Your task to perform on an android device: check storage Image 0: 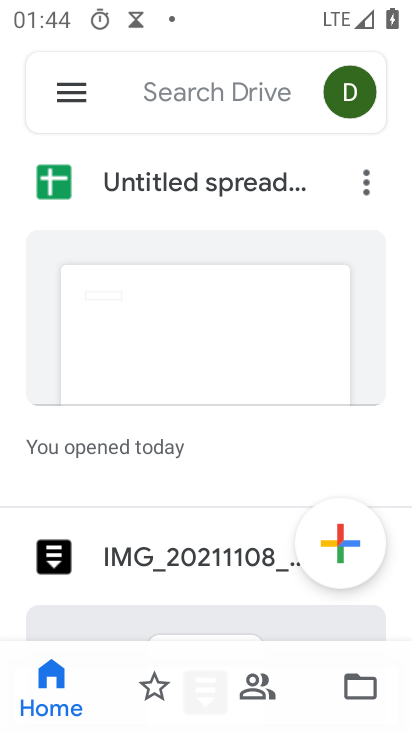
Step 0: press home button
Your task to perform on an android device: check storage Image 1: 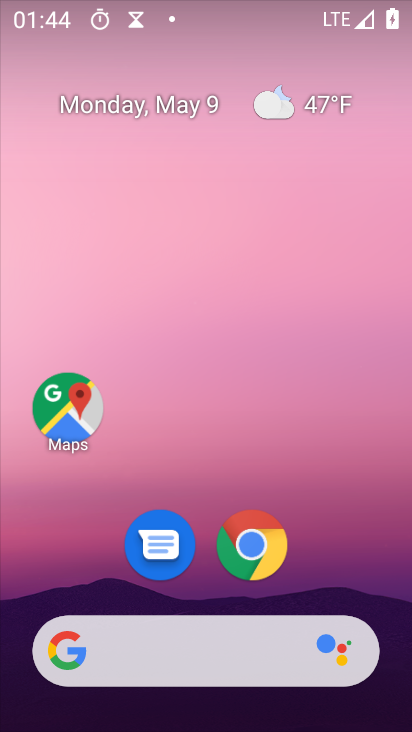
Step 1: drag from (282, 655) to (279, 0)
Your task to perform on an android device: check storage Image 2: 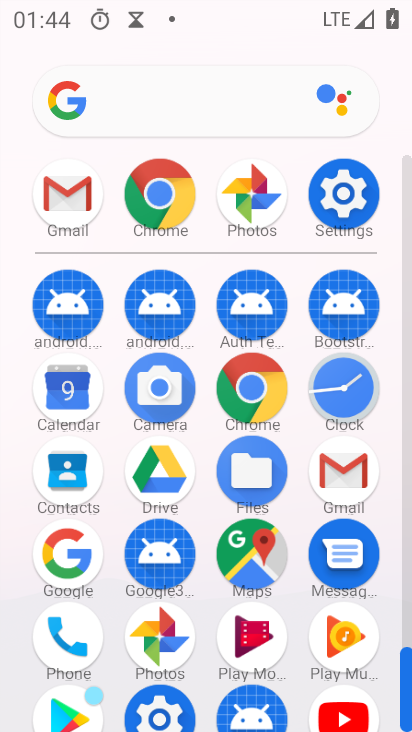
Step 2: click (347, 203)
Your task to perform on an android device: check storage Image 3: 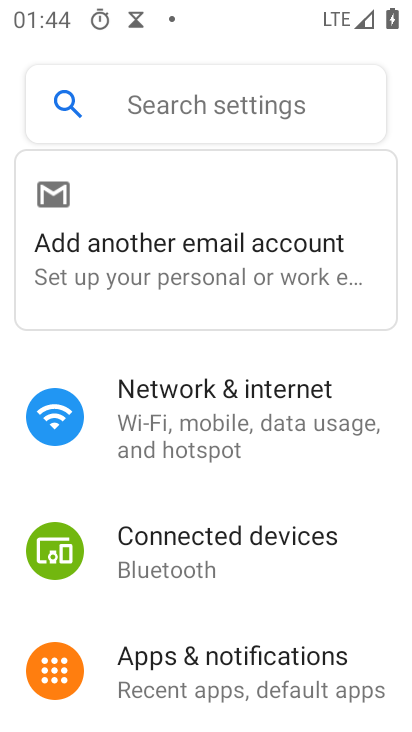
Step 3: drag from (328, 714) to (315, 152)
Your task to perform on an android device: check storage Image 4: 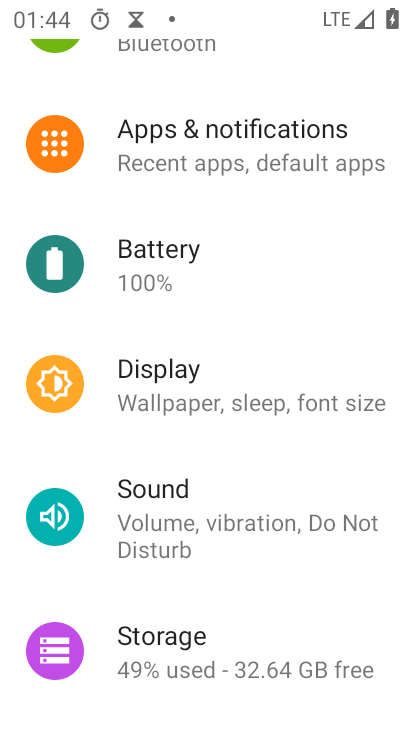
Step 4: drag from (228, 618) to (250, 413)
Your task to perform on an android device: check storage Image 5: 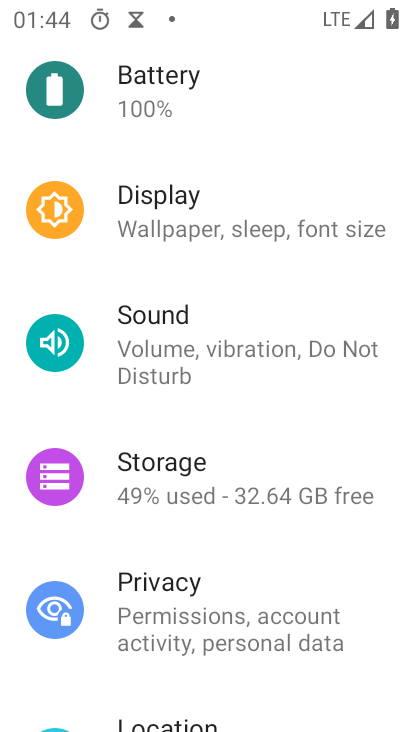
Step 5: click (226, 481)
Your task to perform on an android device: check storage Image 6: 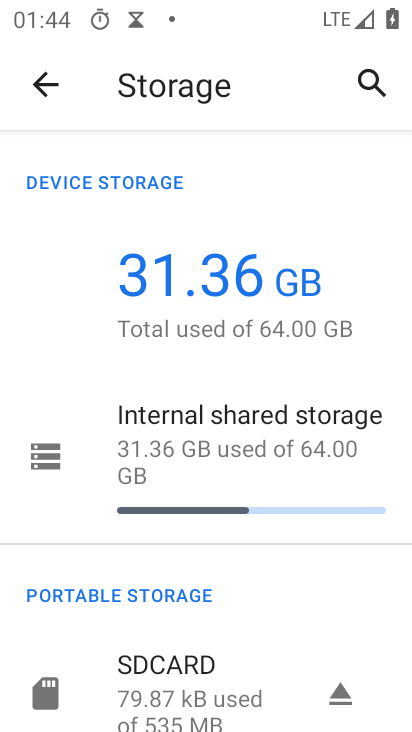
Step 6: task complete